Your task to perform on an android device: Go to battery settings Image 0: 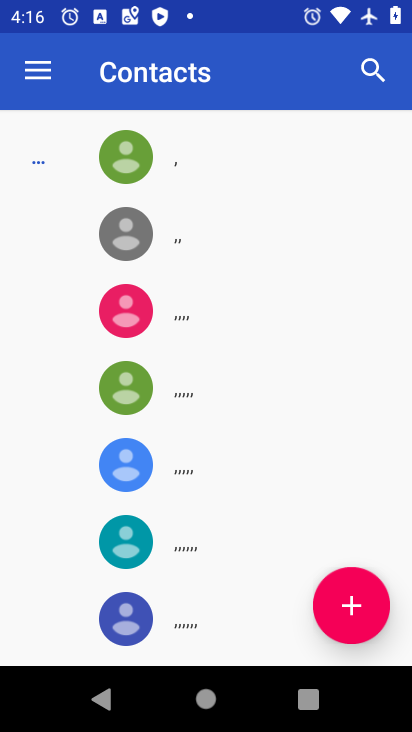
Step 0: press home button
Your task to perform on an android device: Go to battery settings Image 1: 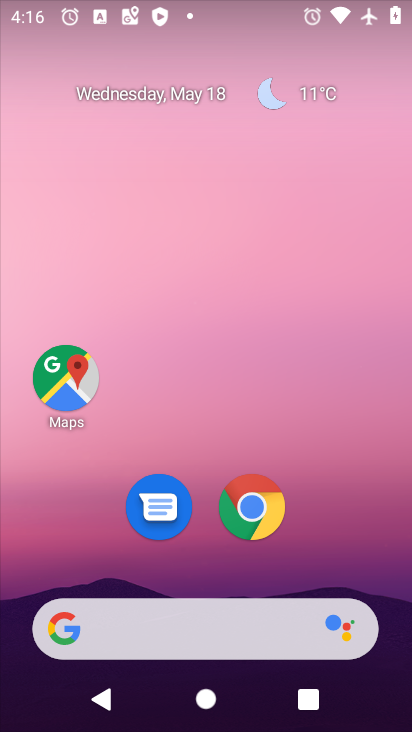
Step 1: drag from (398, 617) to (354, 148)
Your task to perform on an android device: Go to battery settings Image 2: 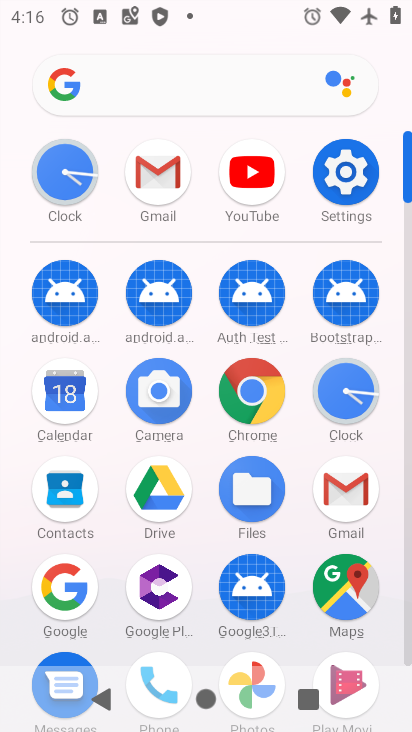
Step 2: click (407, 638)
Your task to perform on an android device: Go to battery settings Image 3: 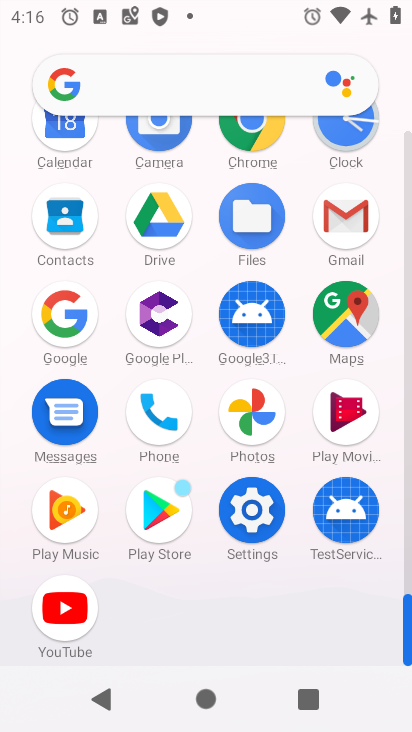
Step 3: click (250, 508)
Your task to perform on an android device: Go to battery settings Image 4: 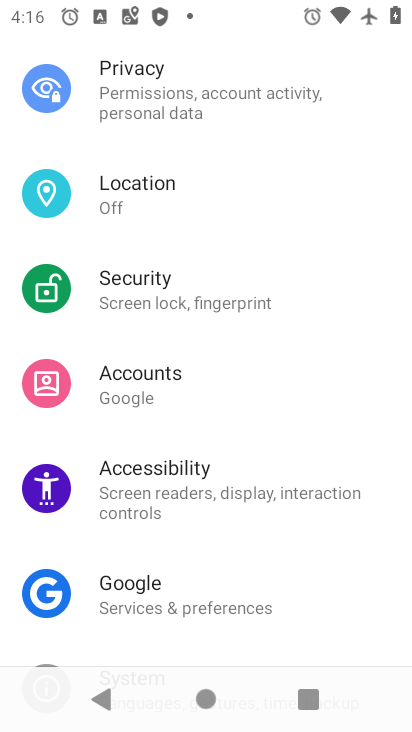
Step 4: drag from (366, 153) to (340, 509)
Your task to perform on an android device: Go to battery settings Image 5: 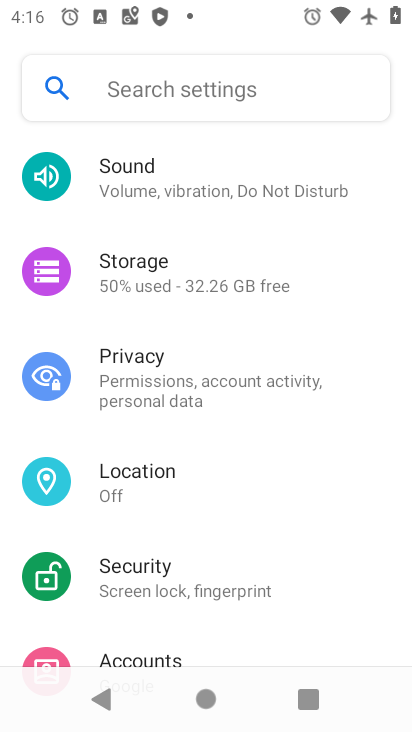
Step 5: drag from (356, 226) to (334, 512)
Your task to perform on an android device: Go to battery settings Image 6: 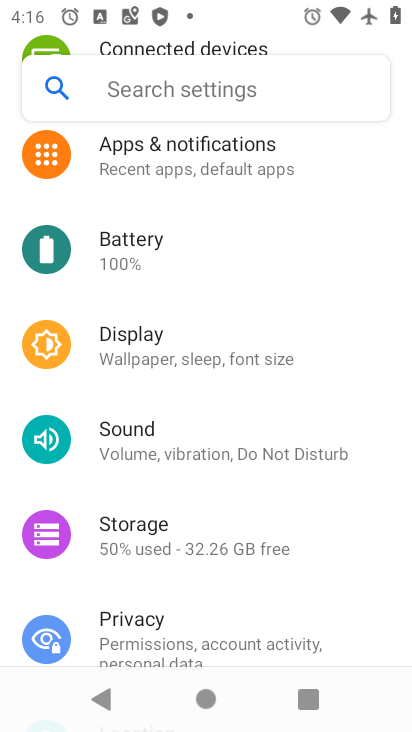
Step 6: click (119, 241)
Your task to perform on an android device: Go to battery settings Image 7: 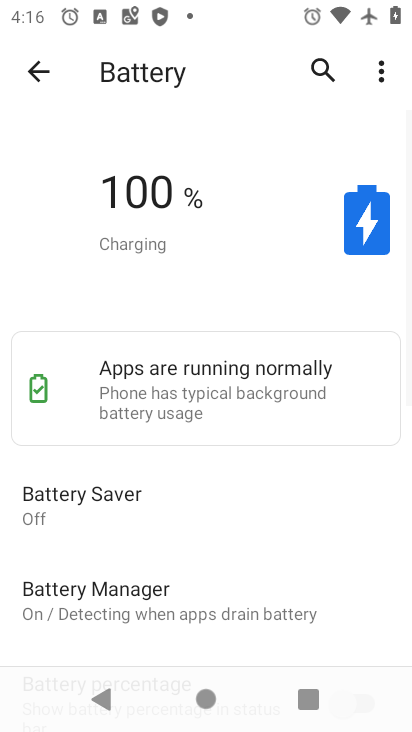
Step 7: task complete